Your task to perform on an android device: Open settings Image 0: 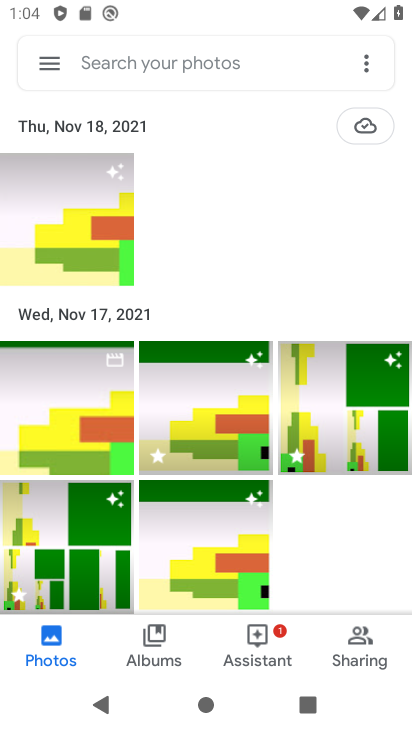
Step 0: press home button
Your task to perform on an android device: Open settings Image 1: 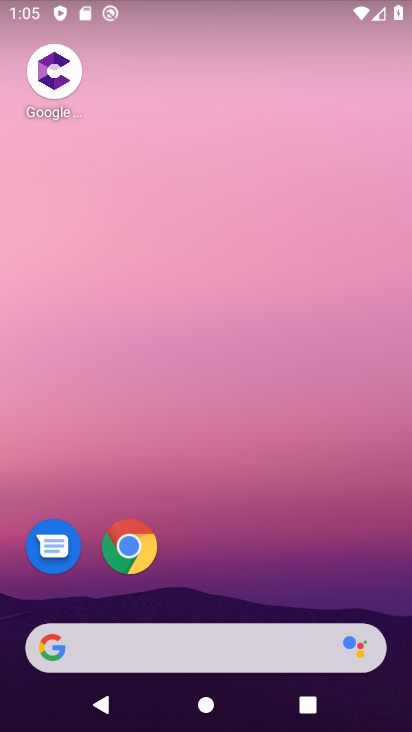
Step 1: drag from (191, 588) to (280, 145)
Your task to perform on an android device: Open settings Image 2: 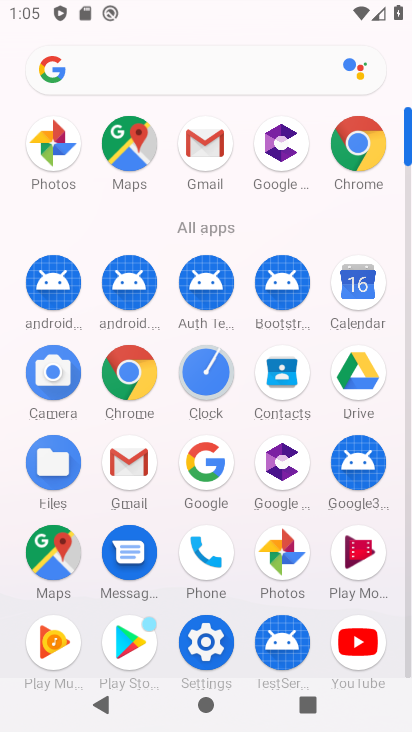
Step 2: click (212, 640)
Your task to perform on an android device: Open settings Image 3: 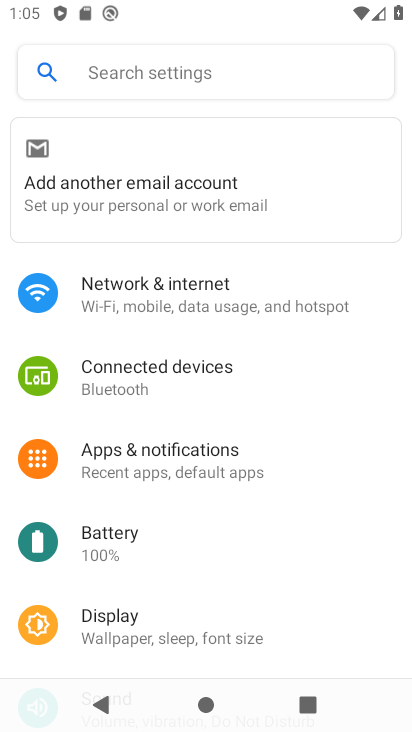
Step 3: task complete